Your task to perform on an android device: Find coffee shops on Maps Image 0: 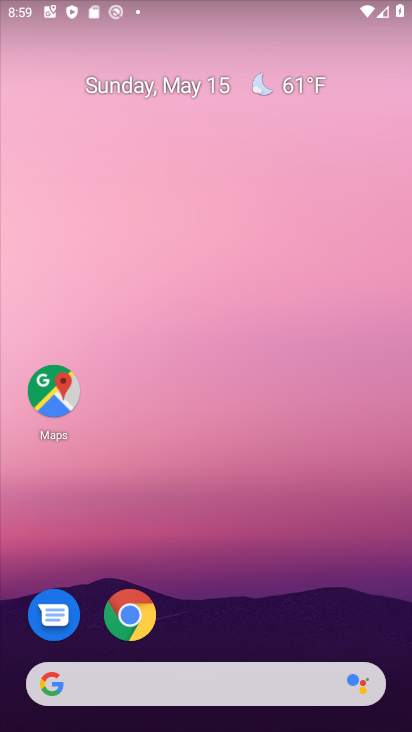
Step 0: drag from (297, 582) to (234, 47)
Your task to perform on an android device: Find coffee shops on Maps Image 1: 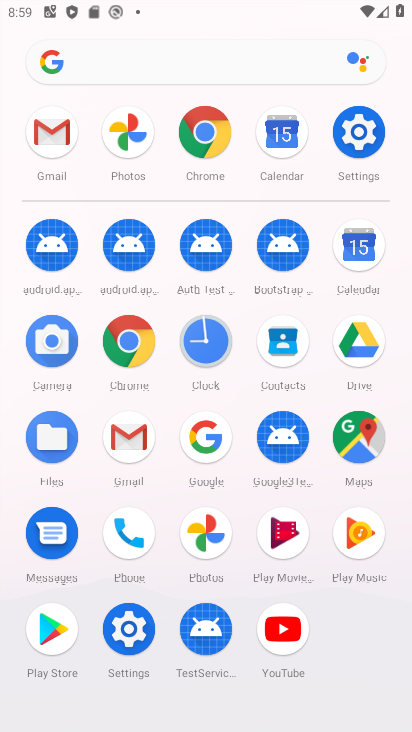
Step 1: click (1, 370)
Your task to perform on an android device: Find coffee shops on Maps Image 2: 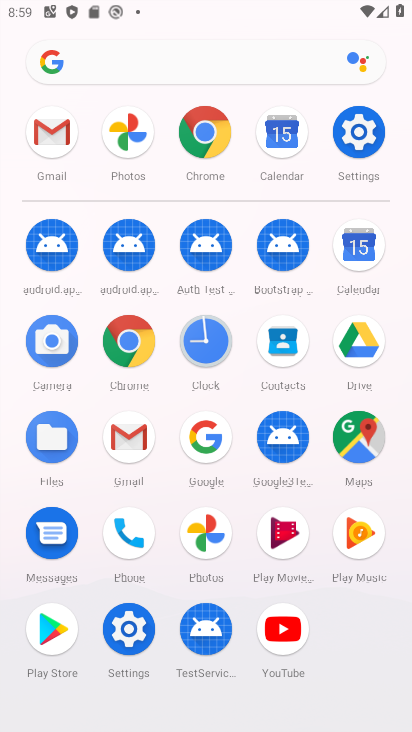
Step 2: click (357, 438)
Your task to perform on an android device: Find coffee shops on Maps Image 3: 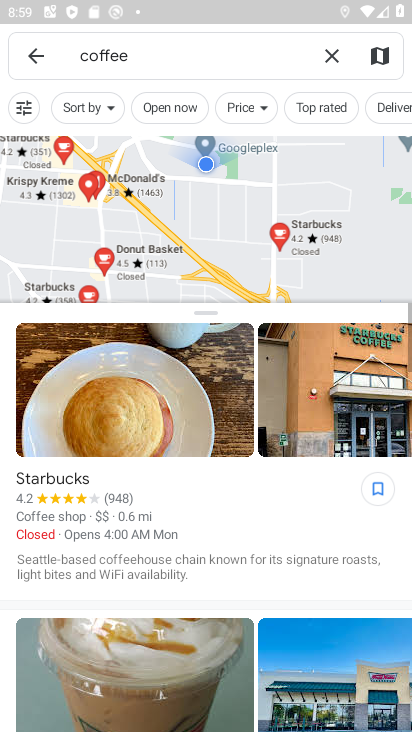
Step 3: click (333, 55)
Your task to perform on an android device: Find coffee shops on Maps Image 4: 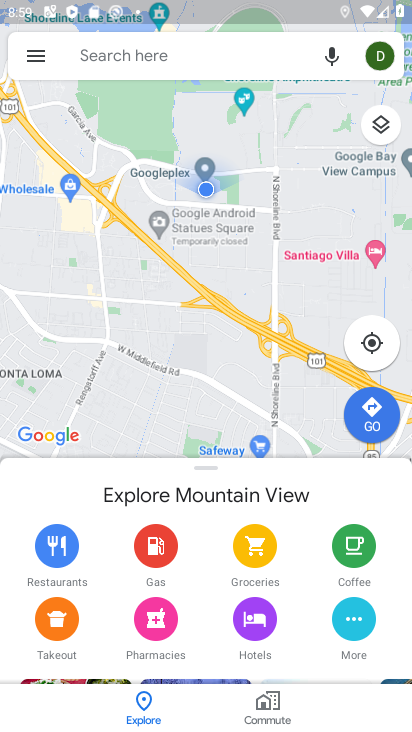
Step 4: click (173, 58)
Your task to perform on an android device: Find coffee shops on Maps Image 5: 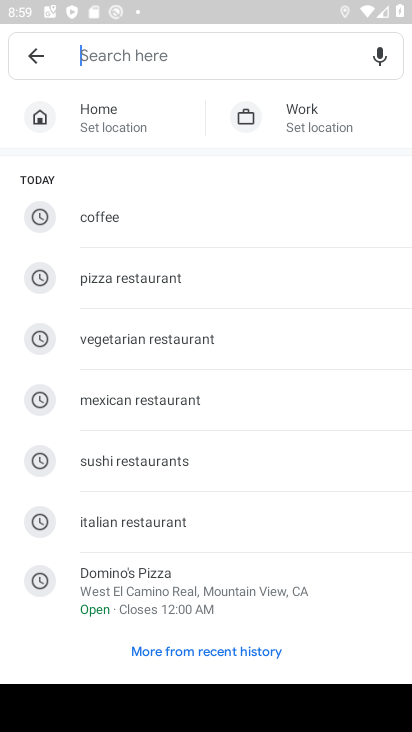
Step 5: click (166, 225)
Your task to perform on an android device: Find coffee shops on Maps Image 6: 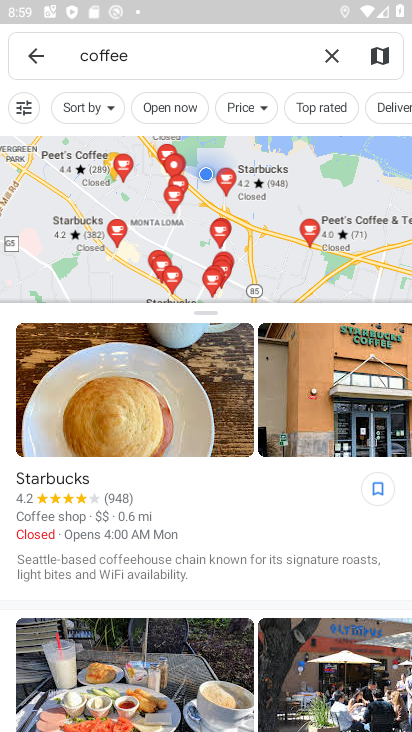
Step 6: task complete